Your task to perform on an android device: turn on location history Image 0: 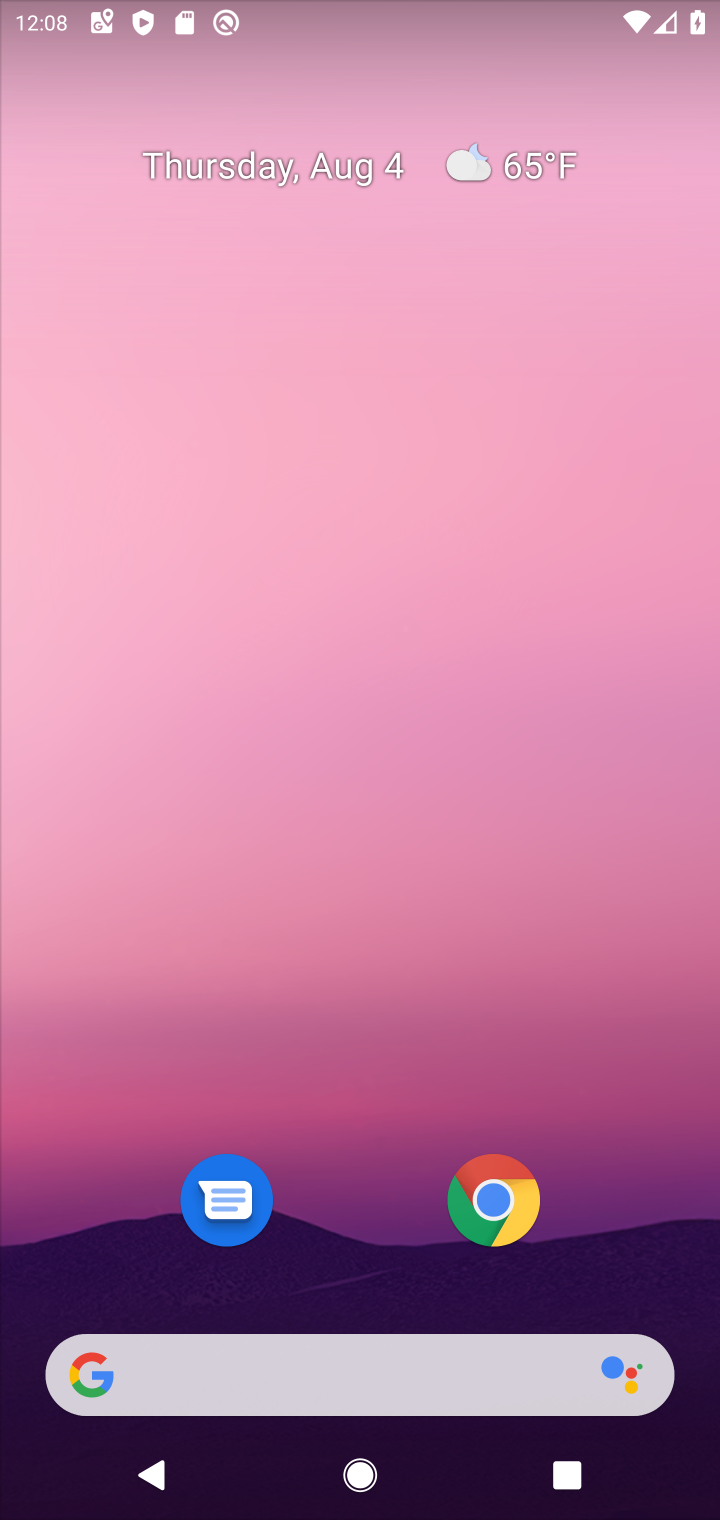
Step 0: drag from (334, 1111) to (282, 33)
Your task to perform on an android device: turn on location history Image 1: 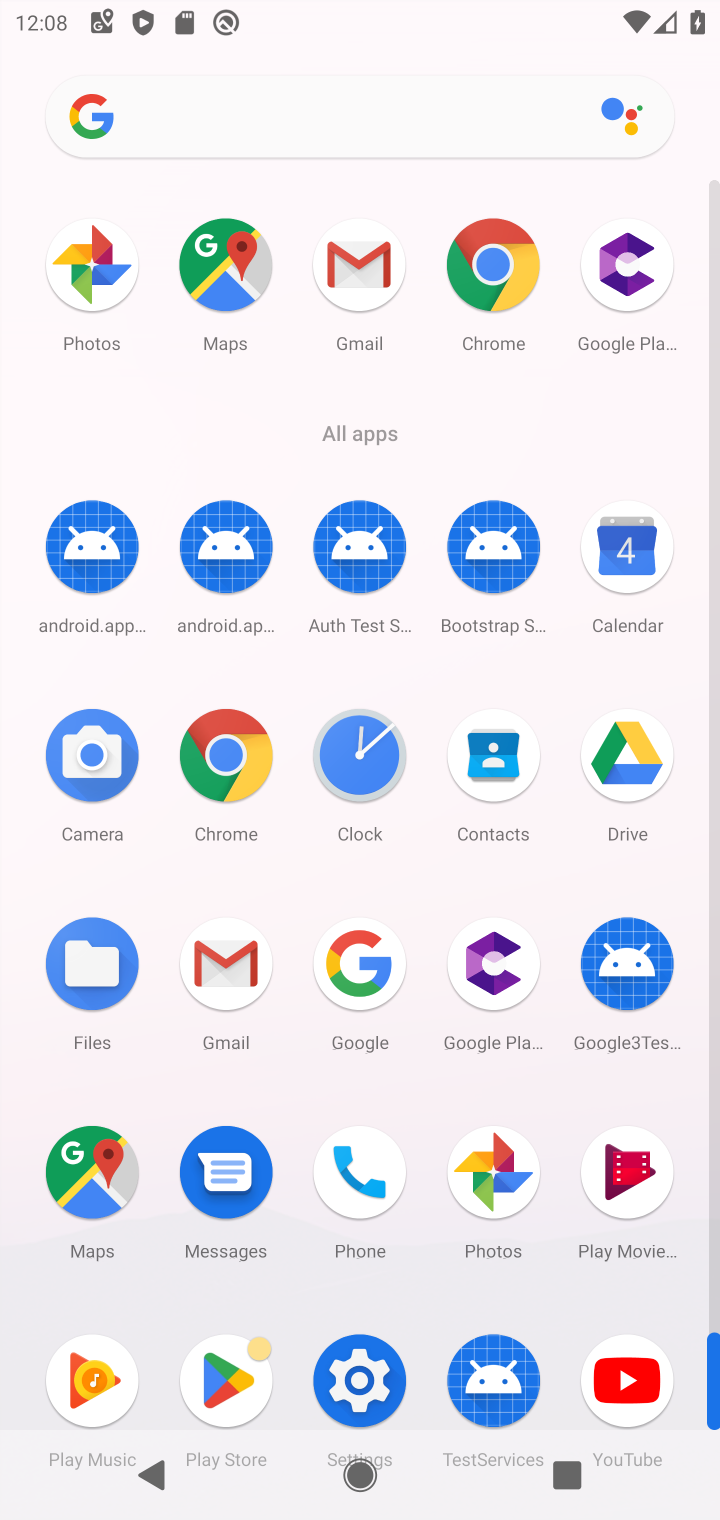
Step 1: click (89, 1174)
Your task to perform on an android device: turn on location history Image 2: 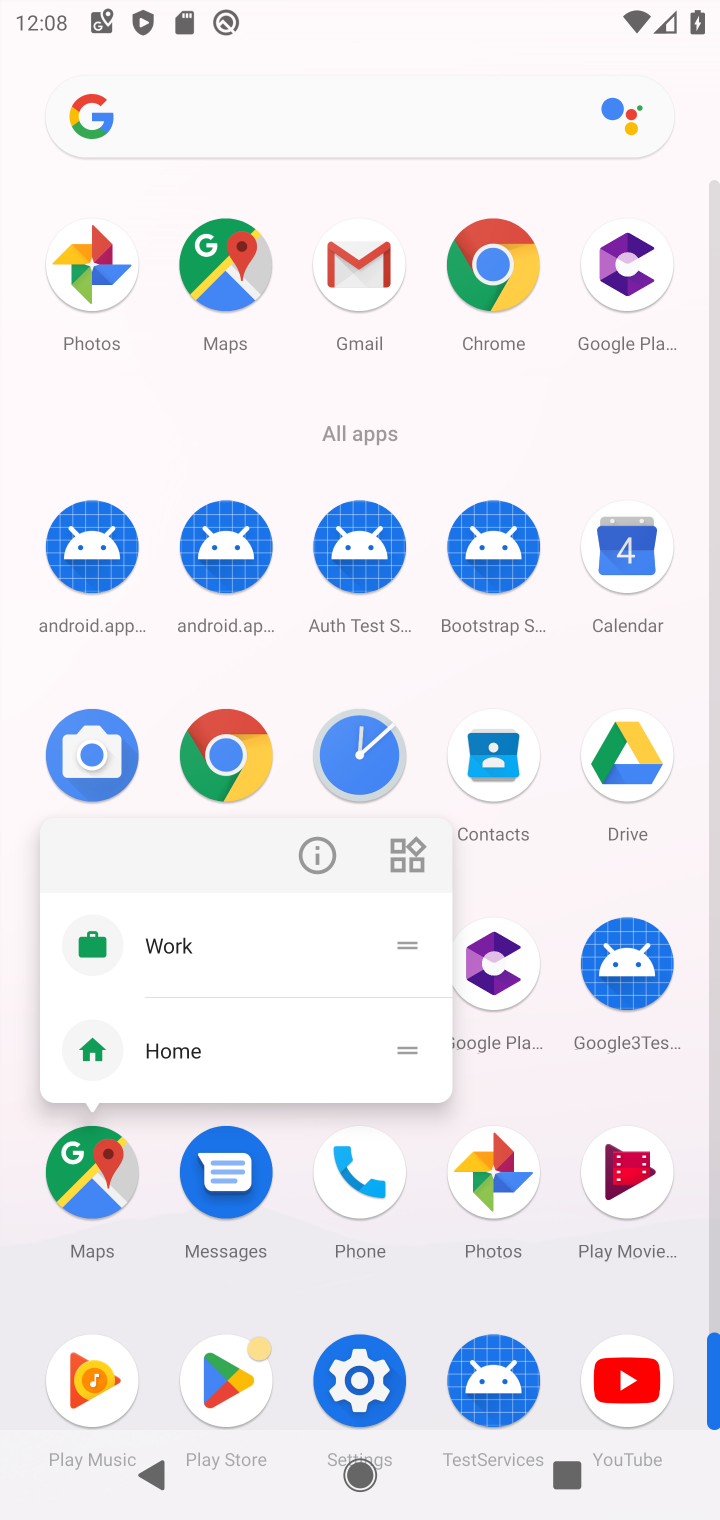
Step 2: click (89, 1174)
Your task to perform on an android device: turn on location history Image 3: 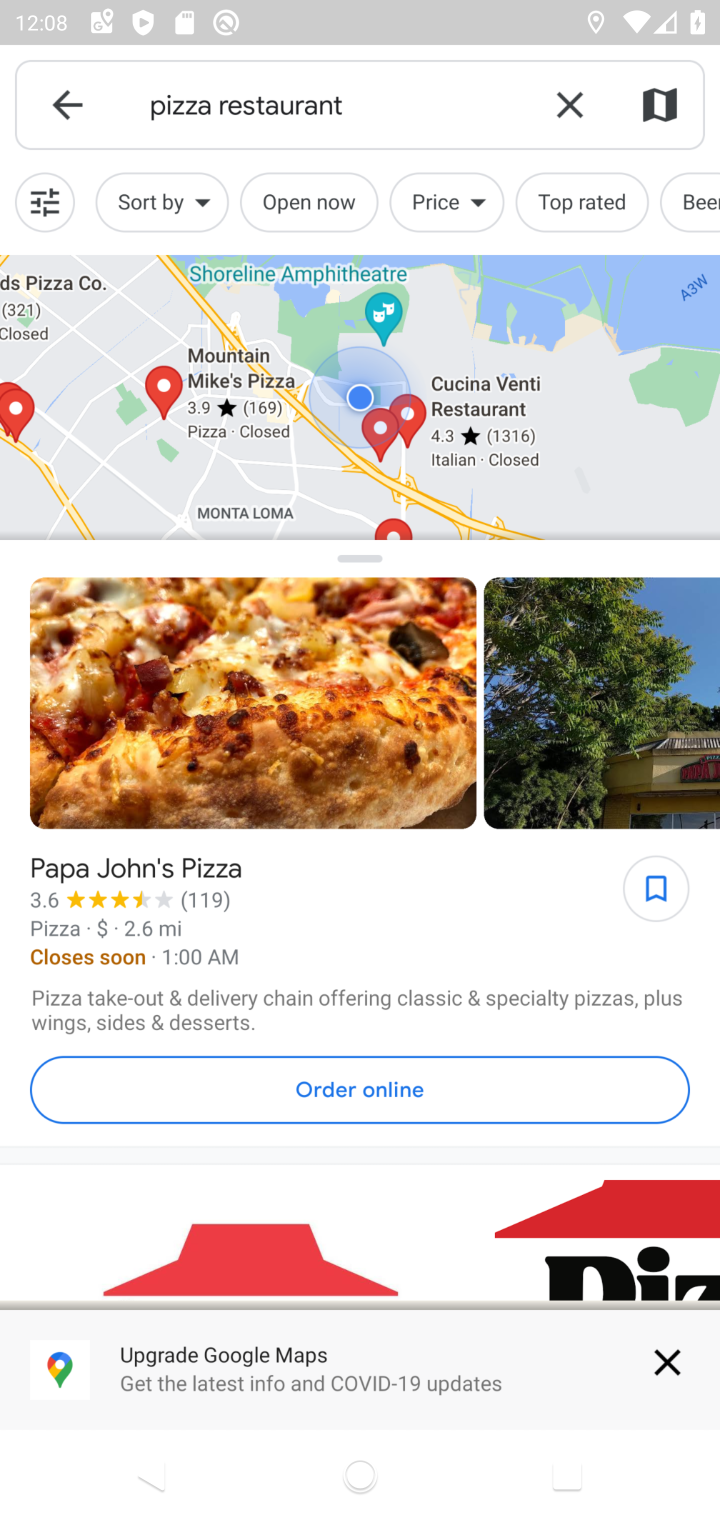
Step 3: click (576, 98)
Your task to perform on an android device: turn on location history Image 4: 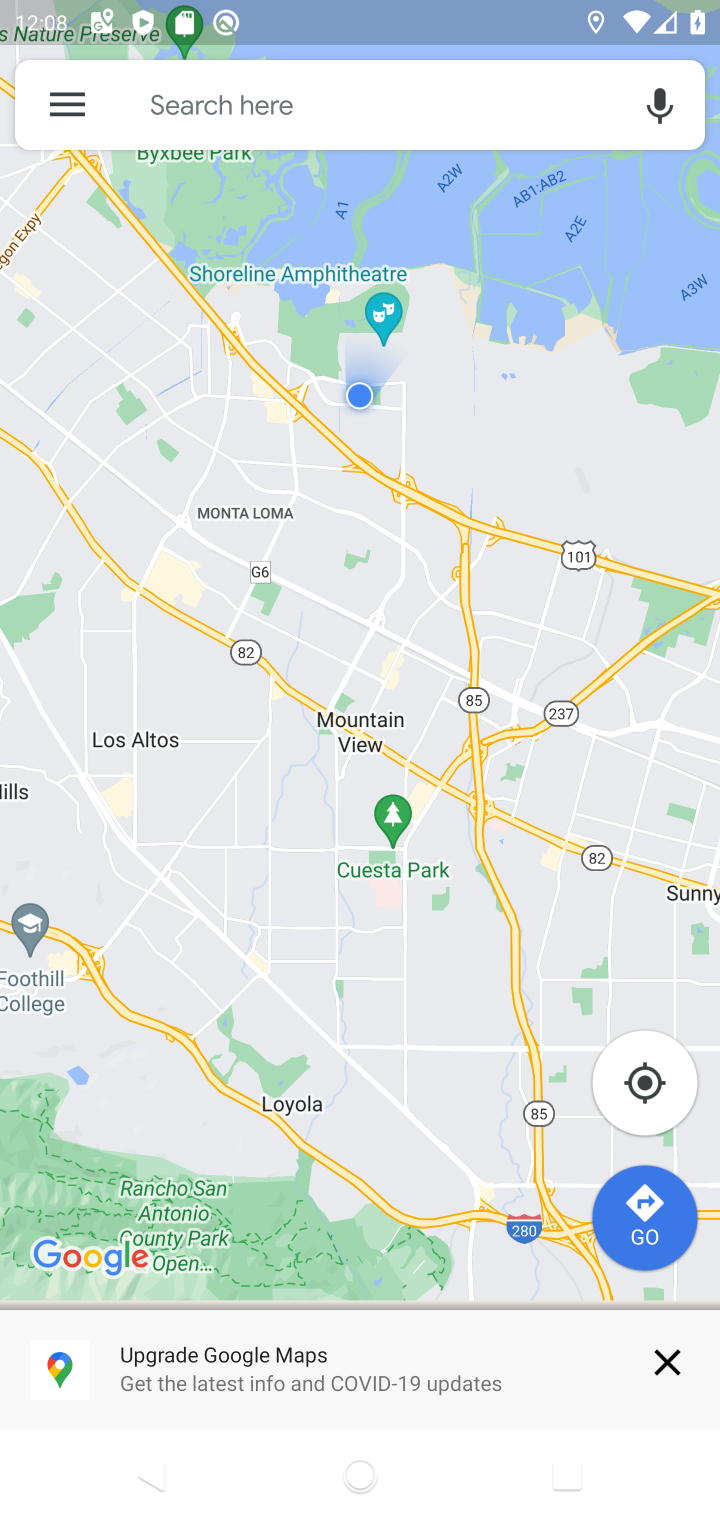
Step 4: click (55, 106)
Your task to perform on an android device: turn on location history Image 5: 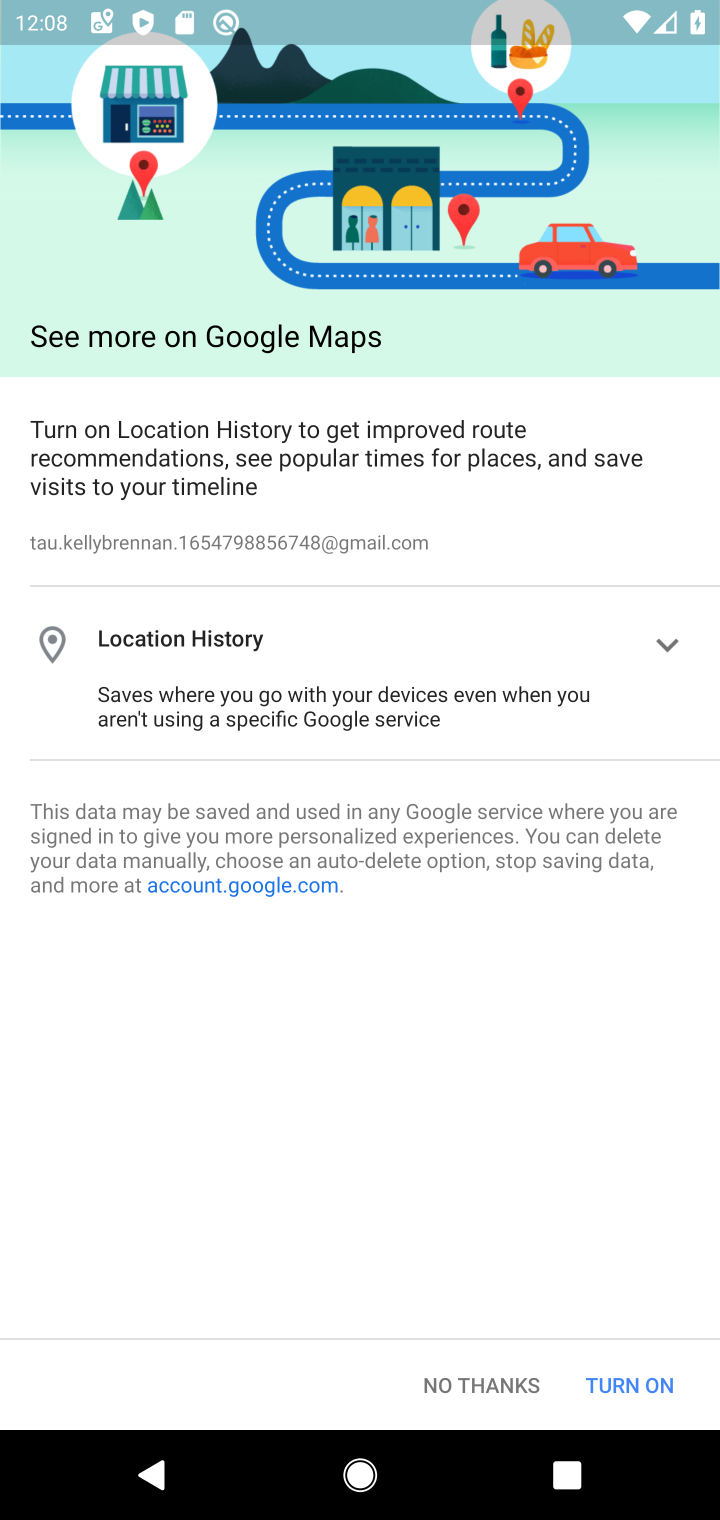
Step 5: click (439, 1380)
Your task to perform on an android device: turn on location history Image 6: 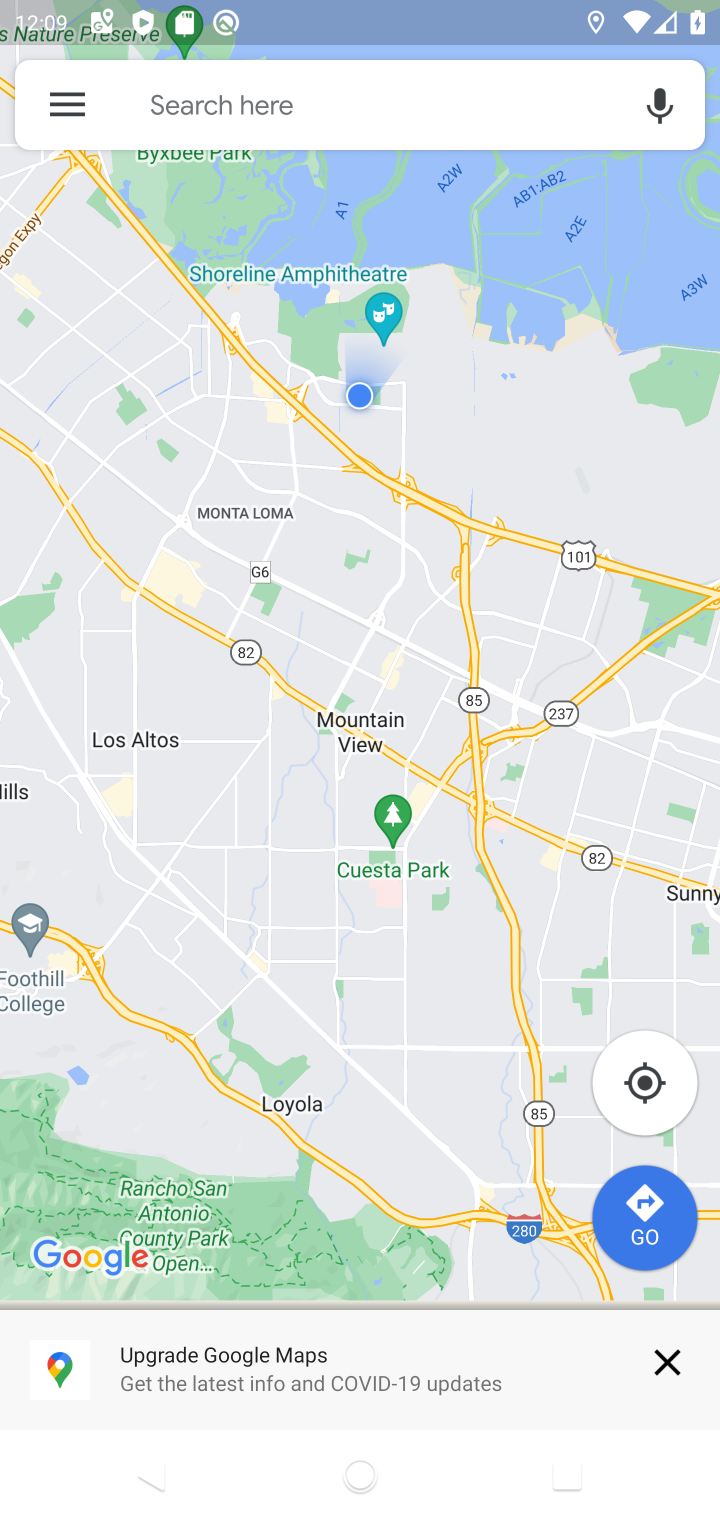
Step 6: click (71, 94)
Your task to perform on an android device: turn on location history Image 7: 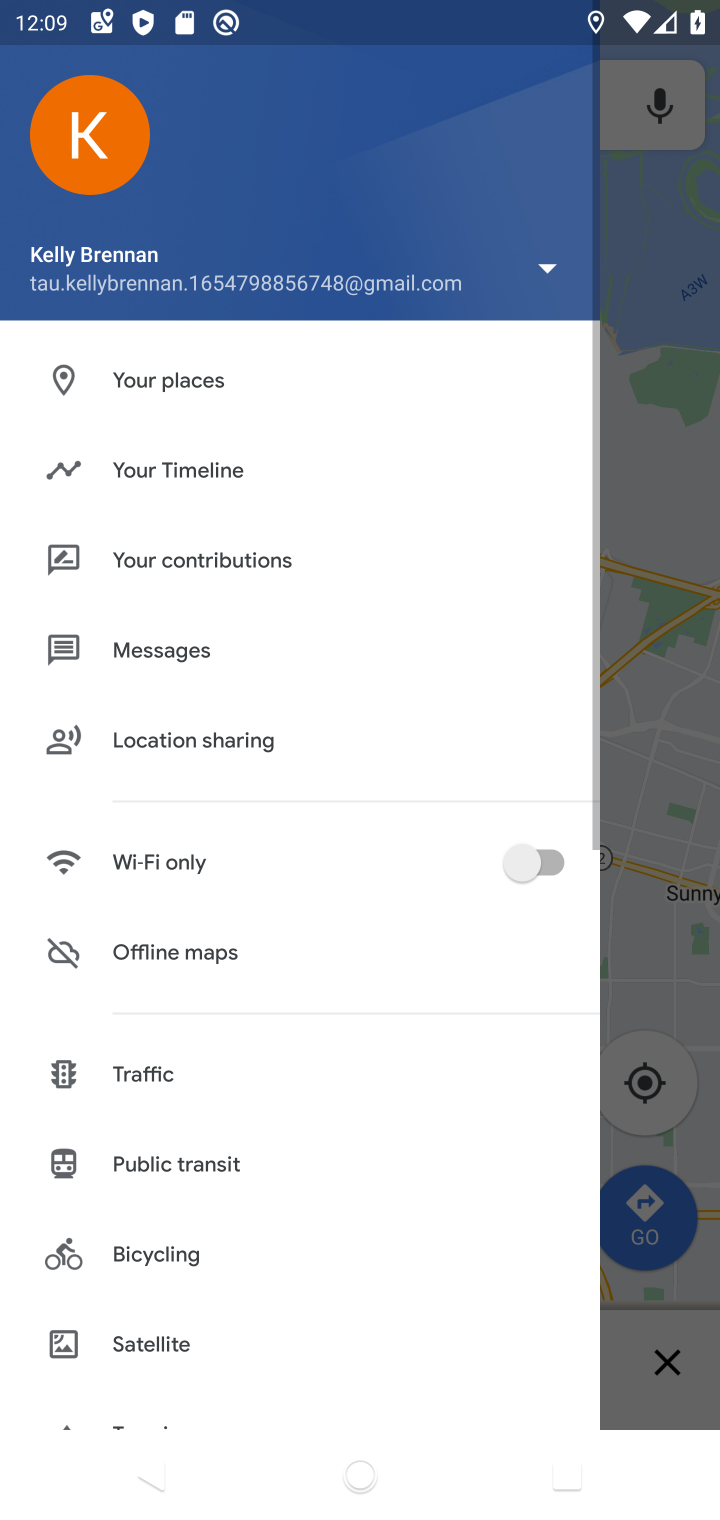
Step 7: click (146, 455)
Your task to perform on an android device: turn on location history Image 8: 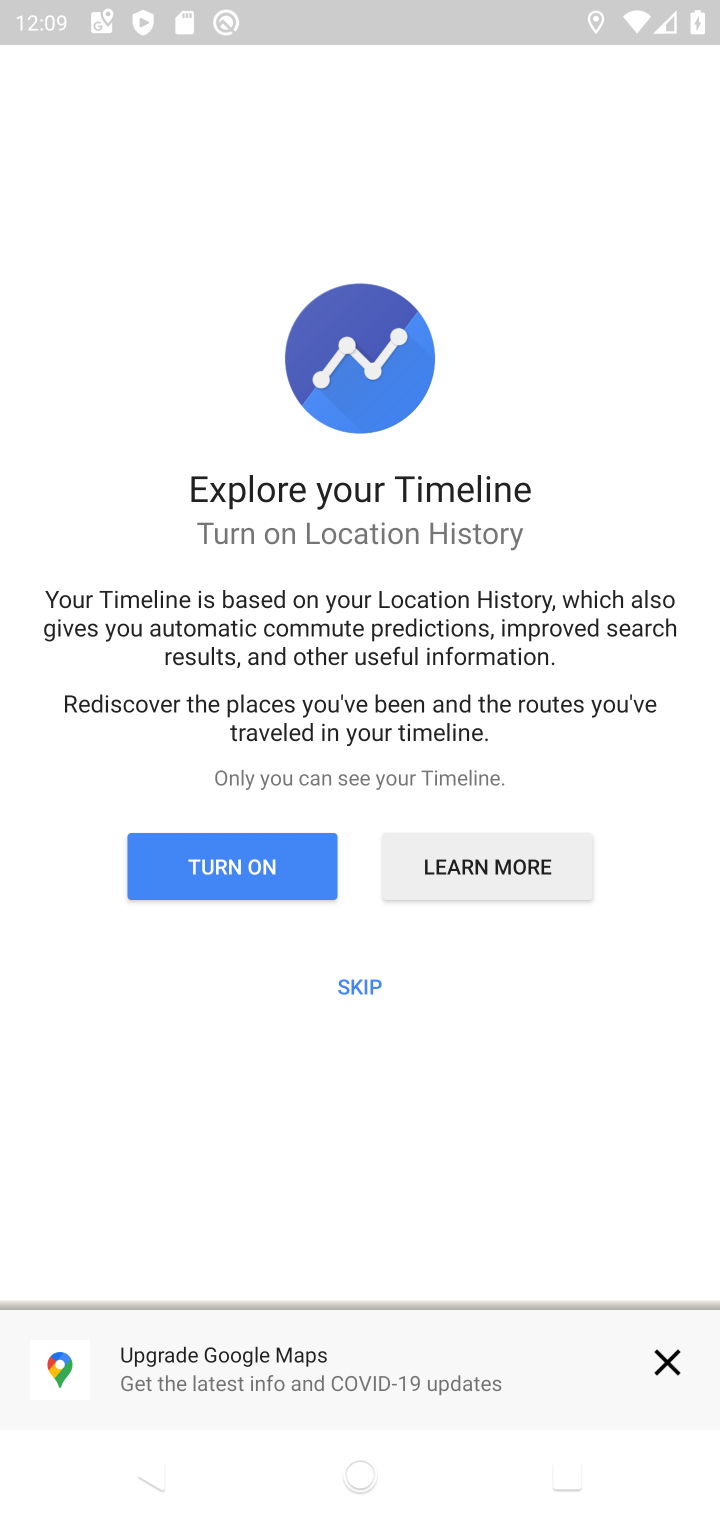
Step 8: click (244, 881)
Your task to perform on an android device: turn on location history Image 9: 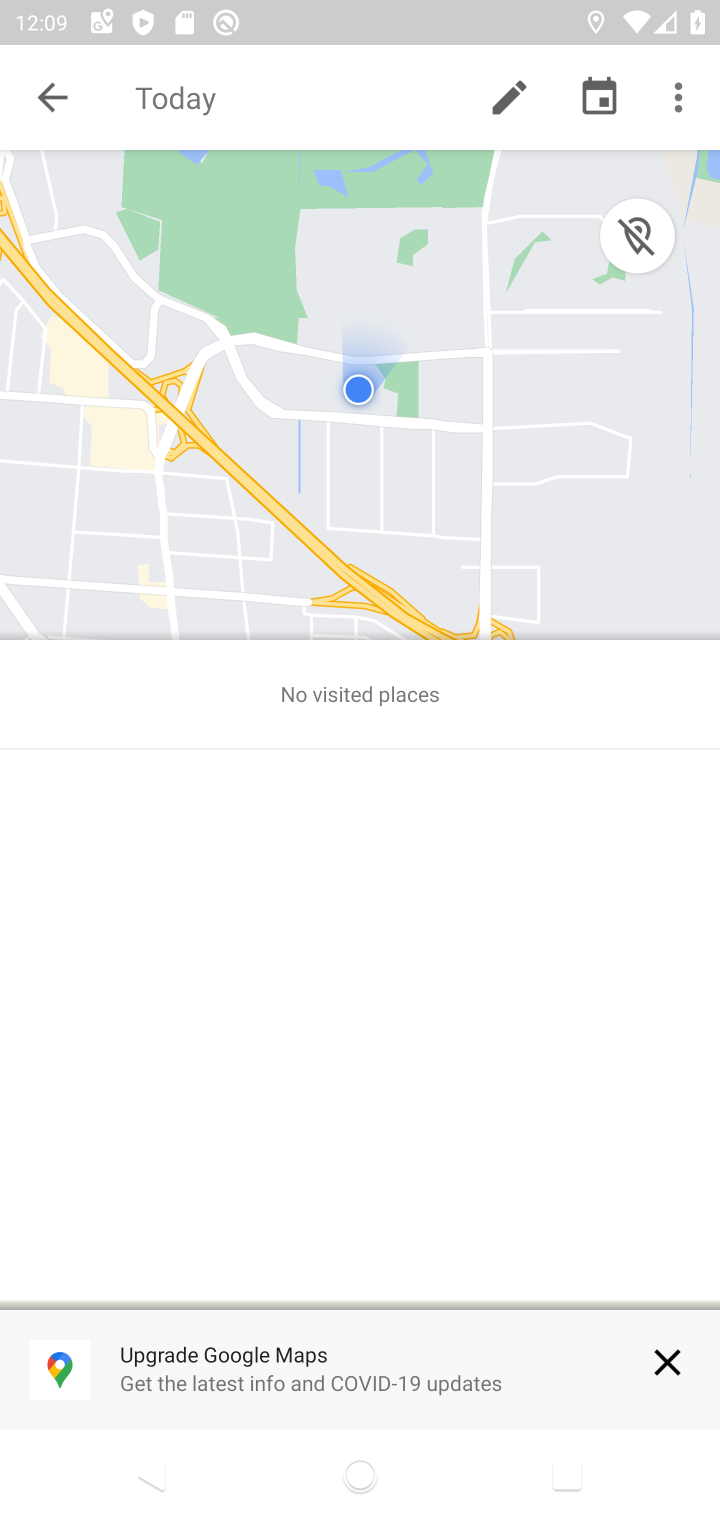
Step 9: click (672, 91)
Your task to perform on an android device: turn on location history Image 10: 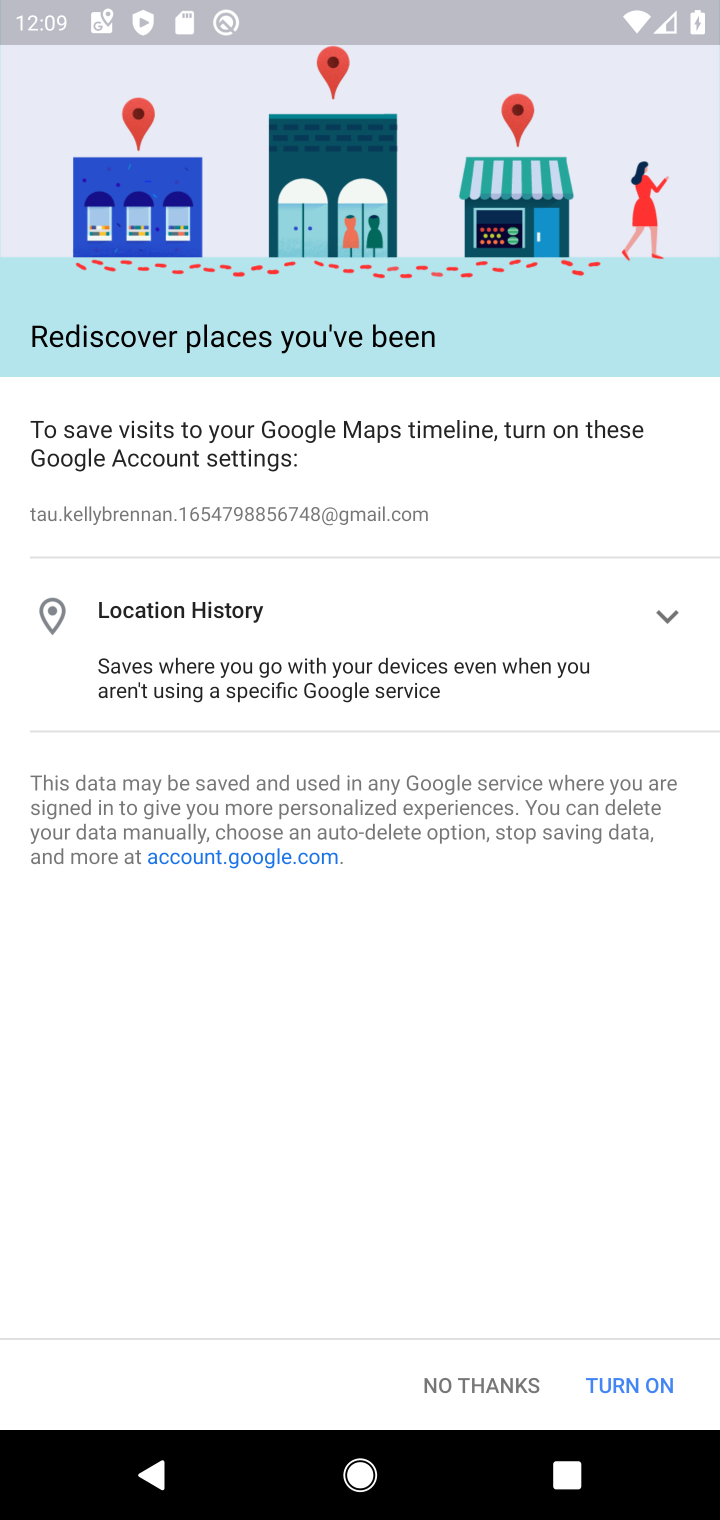
Step 10: click (648, 1370)
Your task to perform on an android device: turn on location history Image 11: 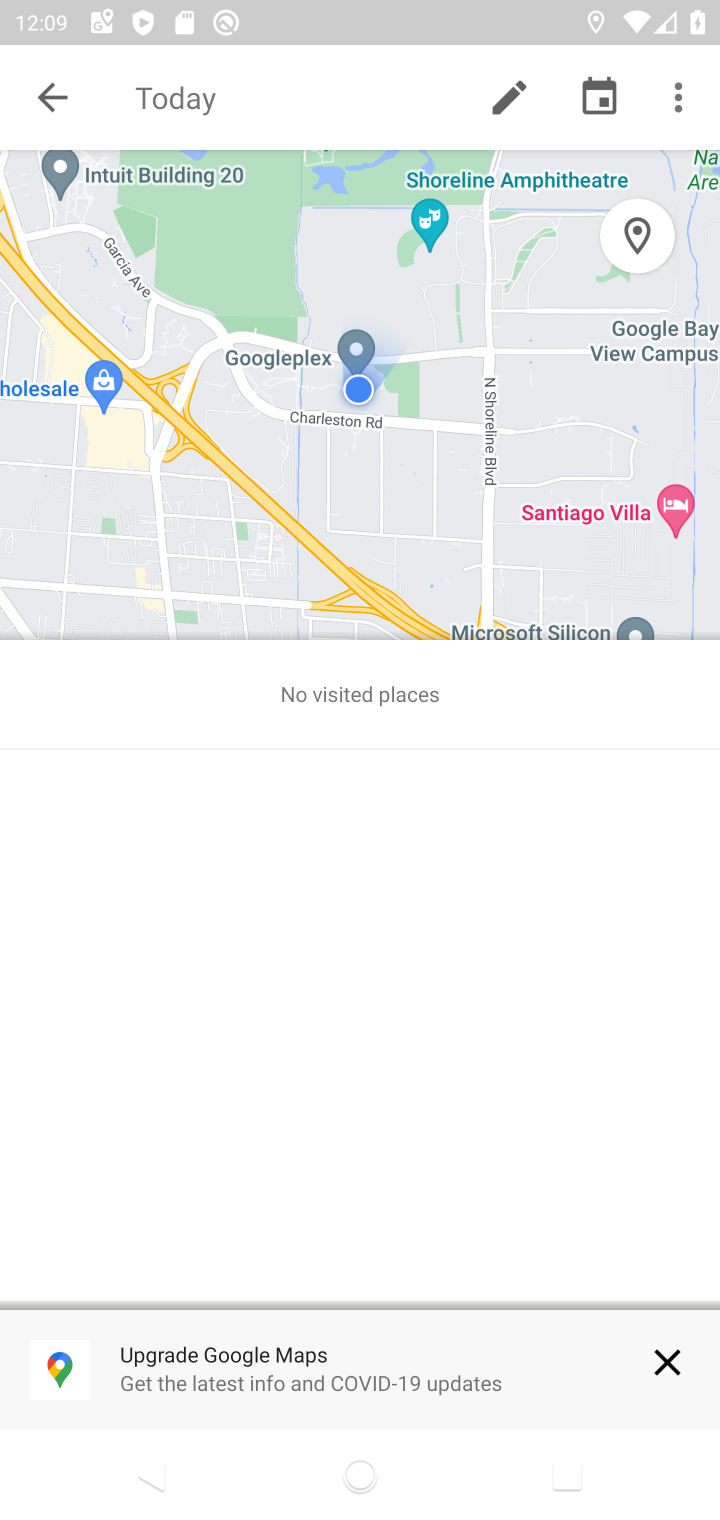
Step 11: click (686, 118)
Your task to perform on an android device: turn on location history Image 12: 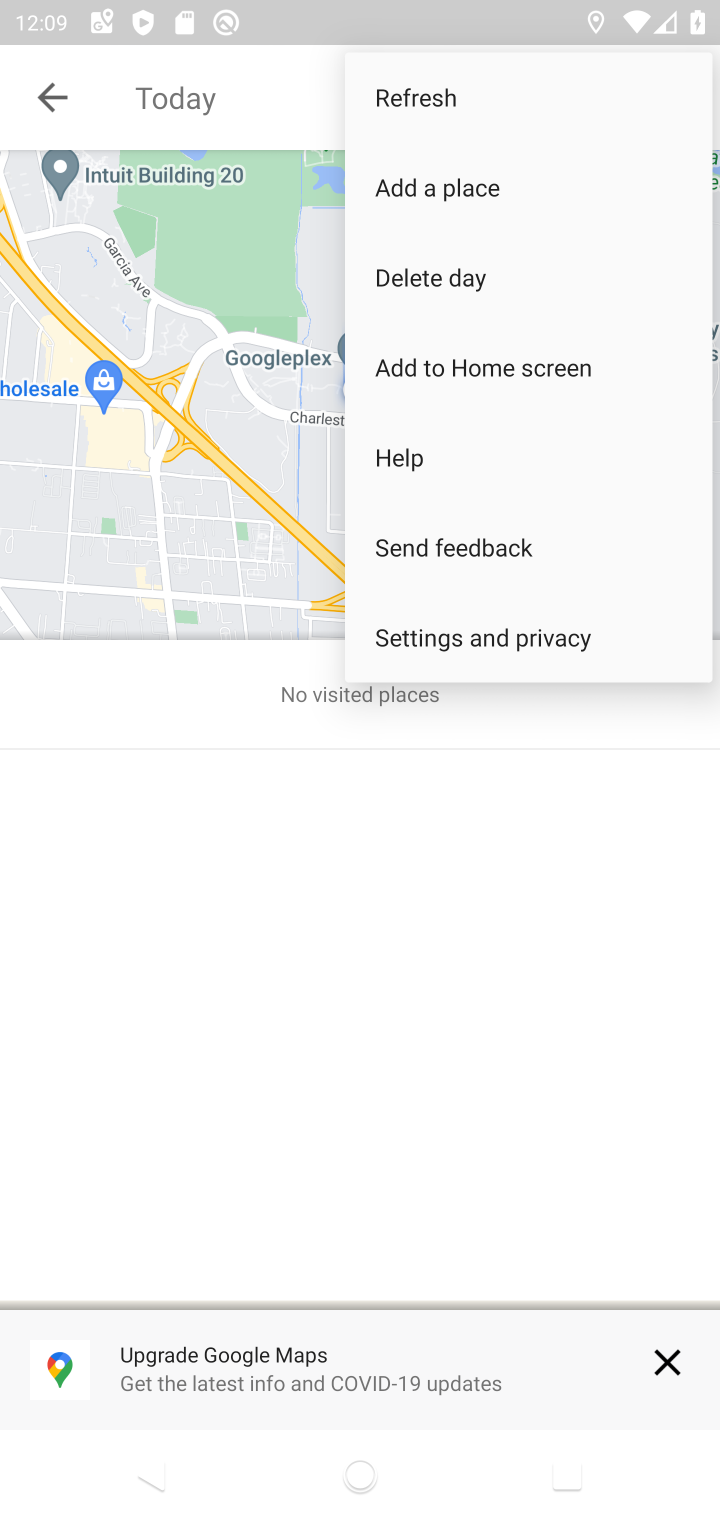
Step 12: click (446, 621)
Your task to perform on an android device: turn on location history Image 13: 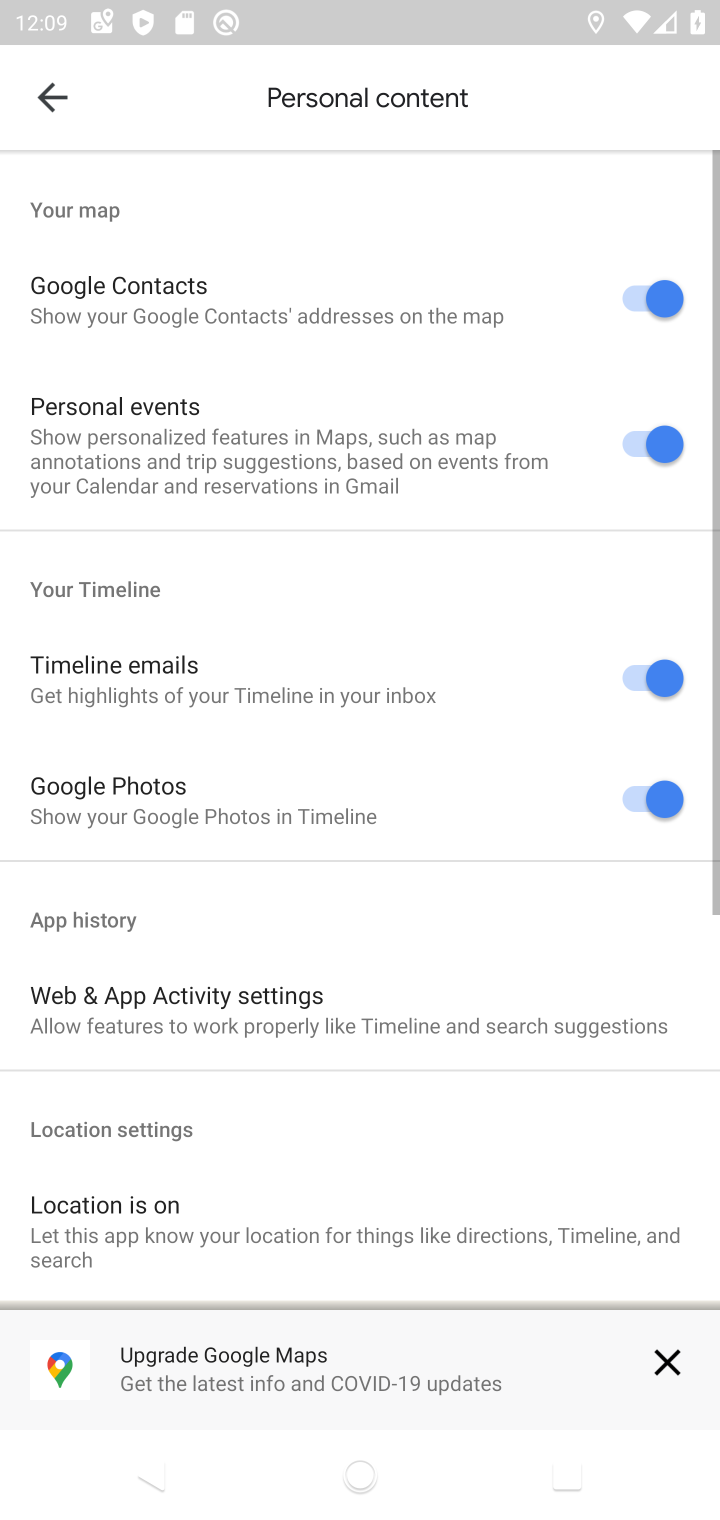
Step 13: task complete